Your task to perform on an android device: delete the emails in spam in the gmail app Image 0: 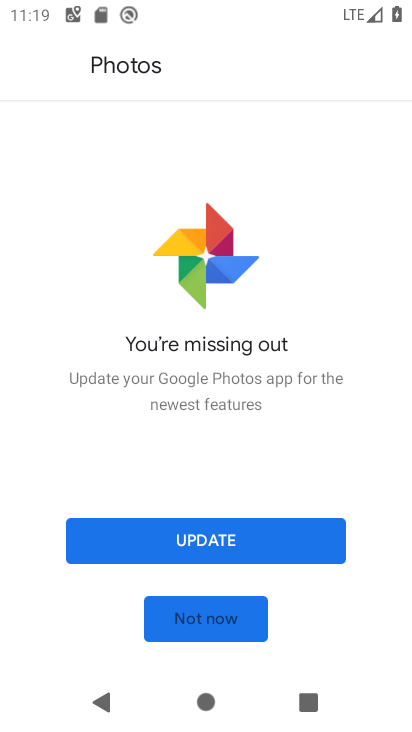
Step 0: press home button
Your task to perform on an android device: delete the emails in spam in the gmail app Image 1: 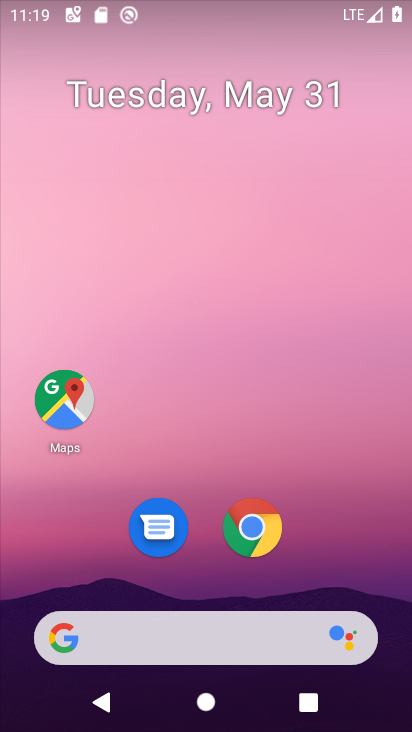
Step 1: drag from (337, 602) to (348, 16)
Your task to perform on an android device: delete the emails in spam in the gmail app Image 2: 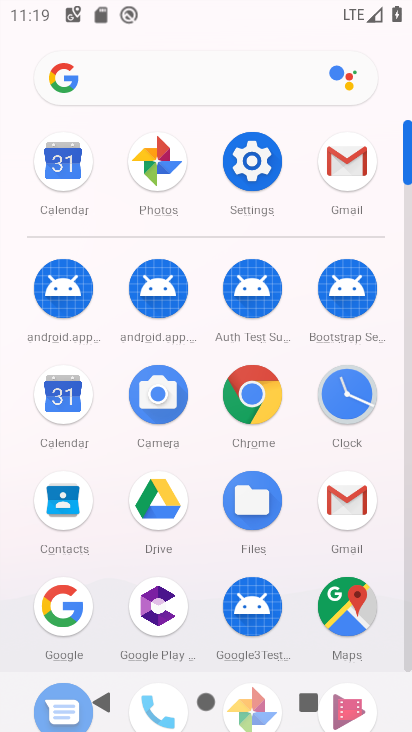
Step 2: click (340, 169)
Your task to perform on an android device: delete the emails in spam in the gmail app Image 3: 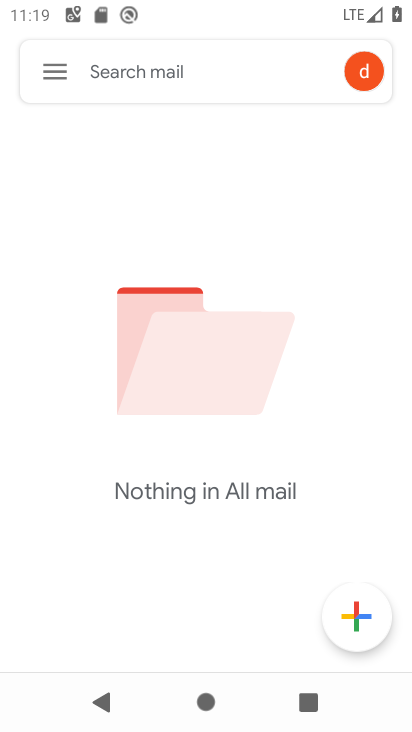
Step 3: click (46, 72)
Your task to perform on an android device: delete the emails in spam in the gmail app Image 4: 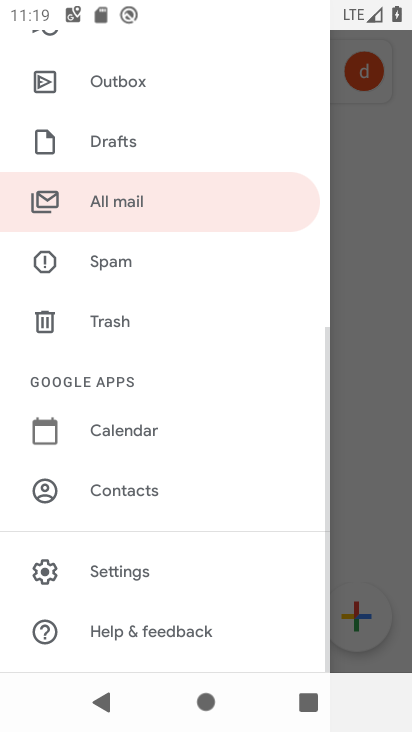
Step 4: click (106, 260)
Your task to perform on an android device: delete the emails in spam in the gmail app Image 5: 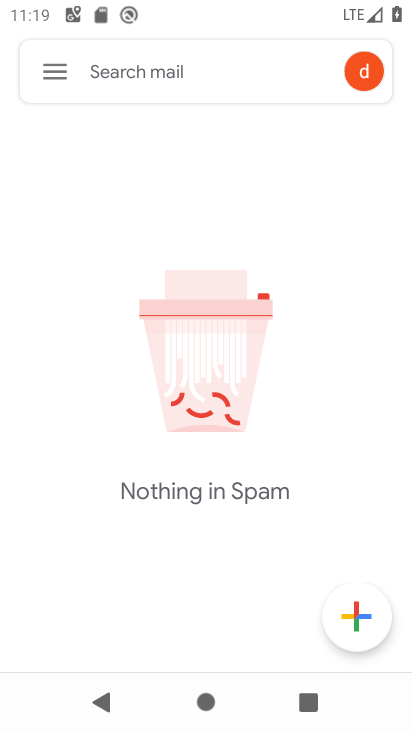
Step 5: task complete